Your task to perform on an android device: turn on javascript in the chrome app Image 0: 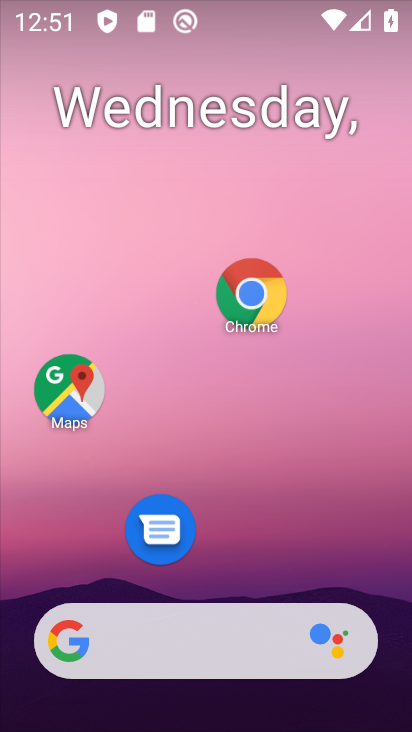
Step 0: drag from (338, 369) to (388, 93)
Your task to perform on an android device: turn on javascript in the chrome app Image 1: 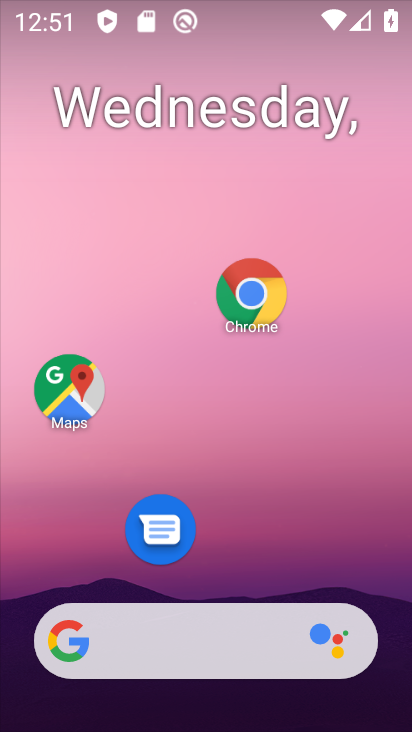
Step 1: drag from (245, 674) to (362, 163)
Your task to perform on an android device: turn on javascript in the chrome app Image 2: 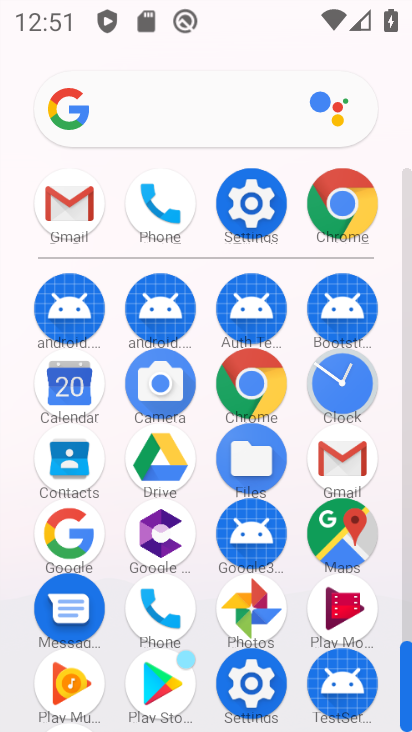
Step 2: click (268, 402)
Your task to perform on an android device: turn on javascript in the chrome app Image 3: 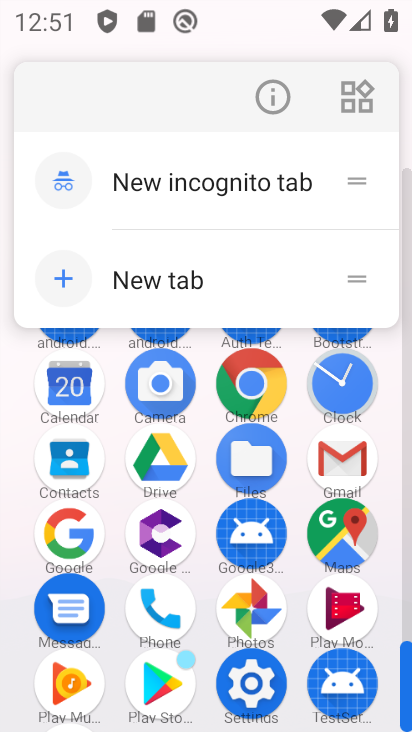
Step 3: click (267, 401)
Your task to perform on an android device: turn on javascript in the chrome app Image 4: 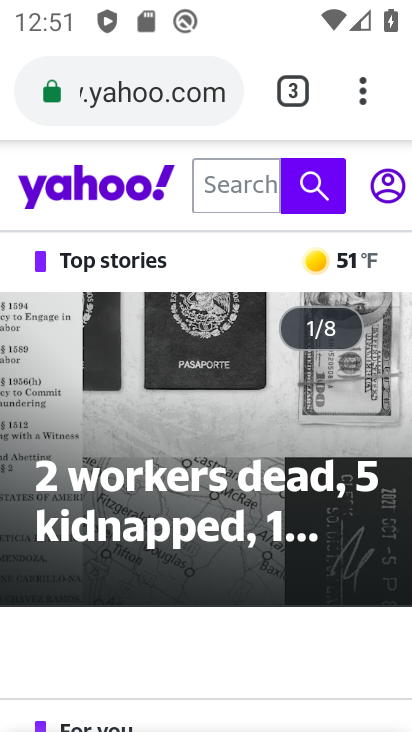
Step 4: click (358, 94)
Your task to perform on an android device: turn on javascript in the chrome app Image 5: 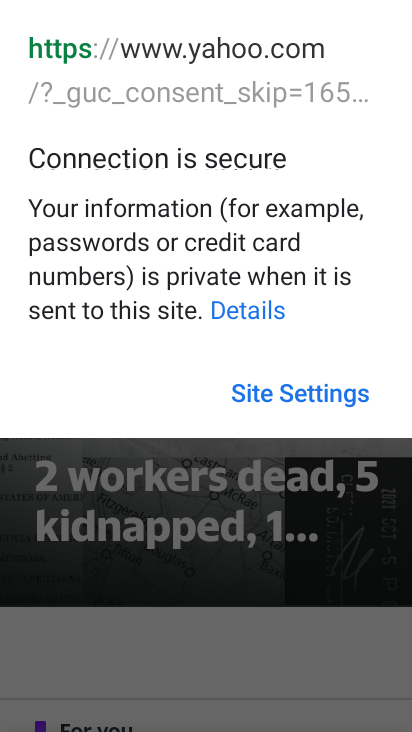
Step 5: click (257, 551)
Your task to perform on an android device: turn on javascript in the chrome app Image 6: 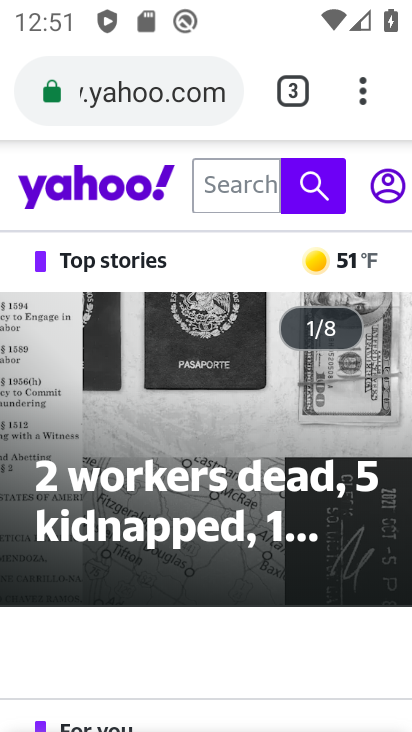
Step 6: click (364, 102)
Your task to perform on an android device: turn on javascript in the chrome app Image 7: 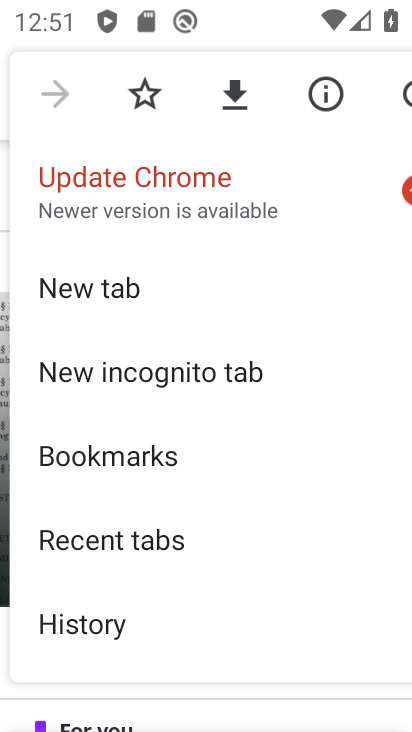
Step 7: drag from (233, 658) to (268, 267)
Your task to perform on an android device: turn on javascript in the chrome app Image 8: 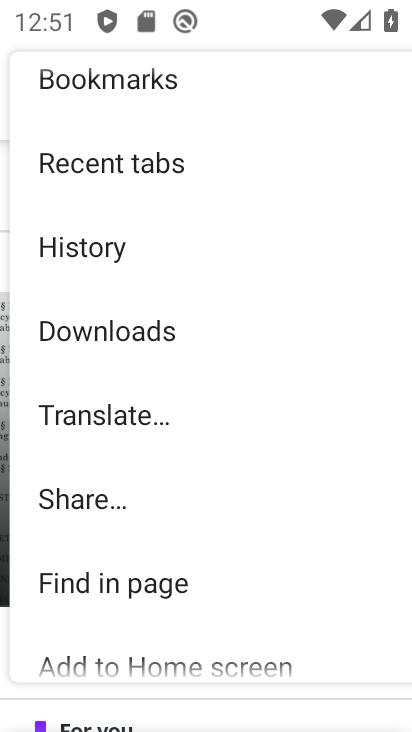
Step 8: drag from (209, 561) to (202, 383)
Your task to perform on an android device: turn on javascript in the chrome app Image 9: 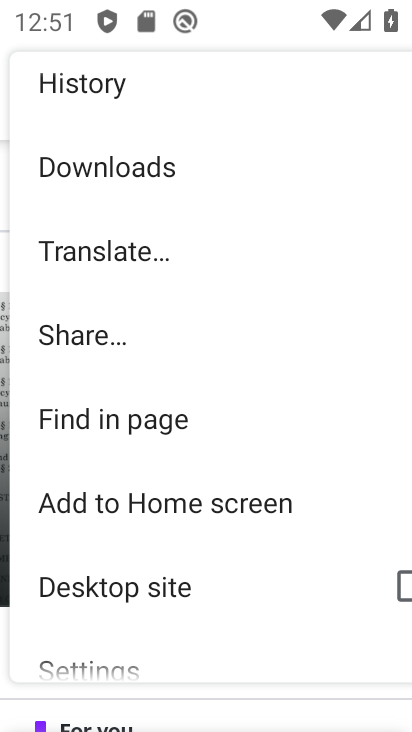
Step 9: drag from (208, 644) to (247, 290)
Your task to perform on an android device: turn on javascript in the chrome app Image 10: 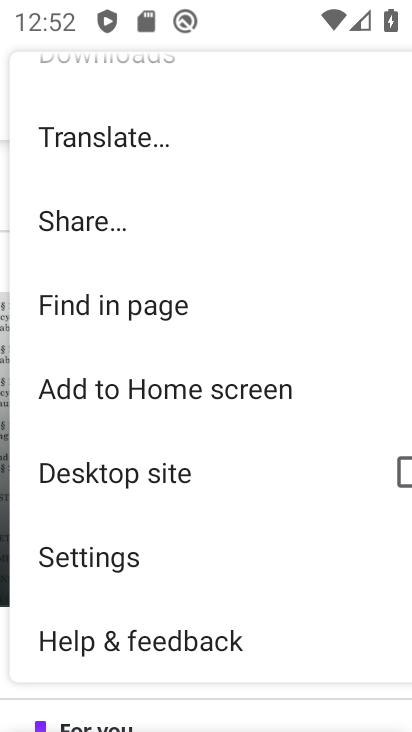
Step 10: click (209, 564)
Your task to perform on an android device: turn on javascript in the chrome app Image 11: 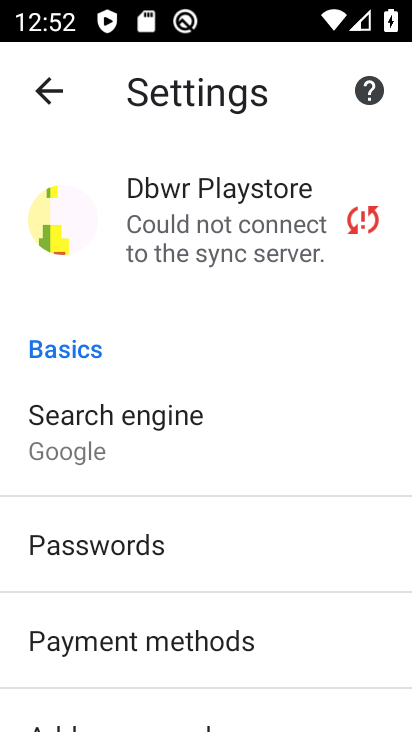
Step 11: drag from (218, 624) to (231, 425)
Your task to perform on an android device: turn on javascript in the chrome app Image 12: 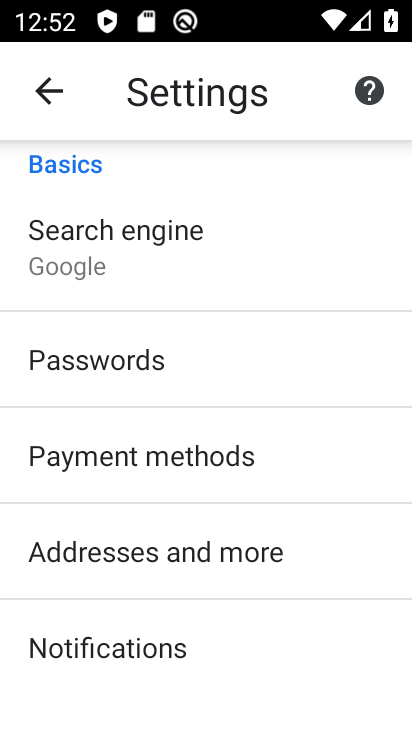
Step 12: drag from (250, 586) to (259, 331)
Your task to perform on an android device: turn on javascript in the chrome app Image 13: 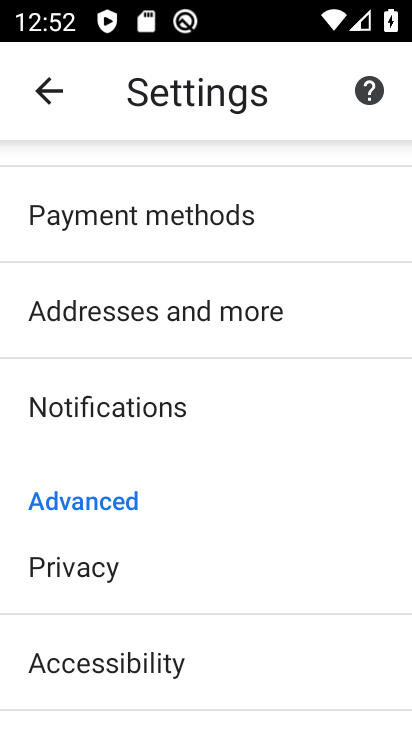
Step 13: drag from (247, 679) to (248, 512)
Your task to perform on an android device: turn on javascript in the chrome app Image 14: 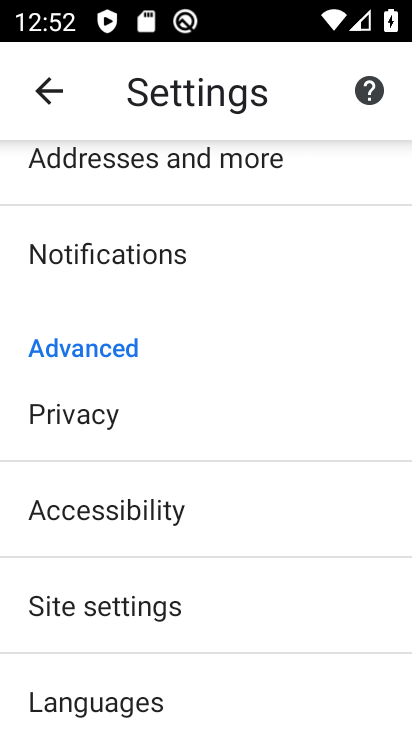
Step 14: click (171, 618)
Your task to perform on an android device: turn on javascript in the chrome app Image 15: 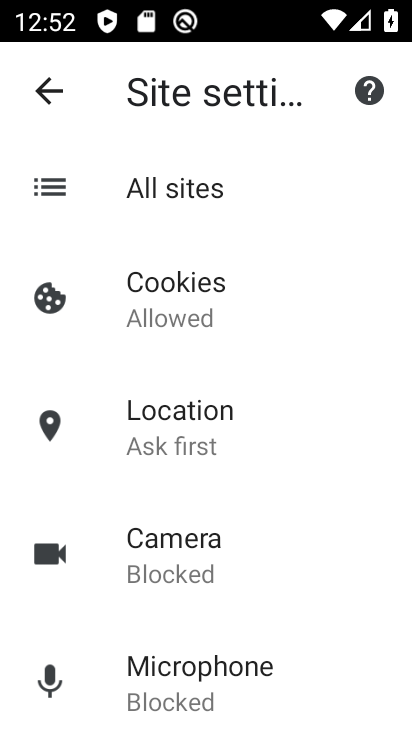
Step 15: drag from (160, 599) to (270, 147)
Your task to perform on an android device: turn on javascript in the chrome app Image 16: 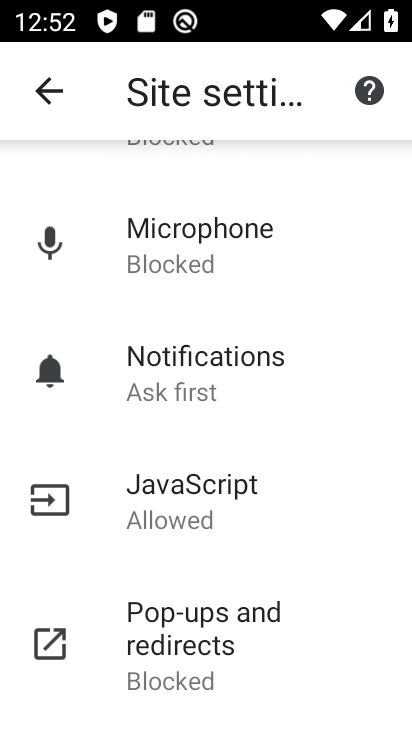
Step 16: click (211, 506)
Your task to perform on an android device: turn on javascript in the chrome app Image 17: 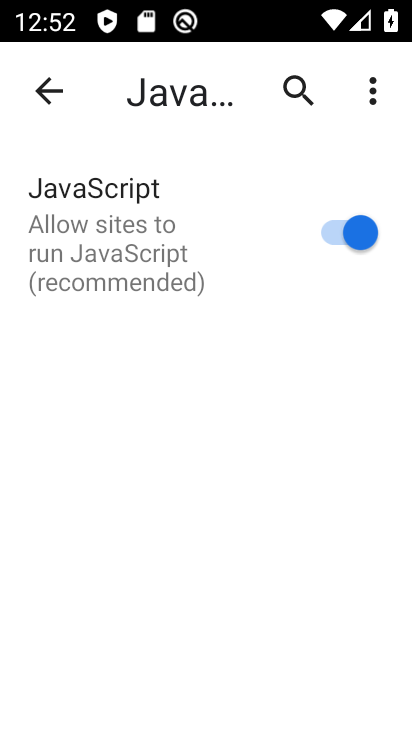
Step 17: task complete